Your task to perform on an android device: open app "Google Pay: Save, Pay, Manage" Image 0: 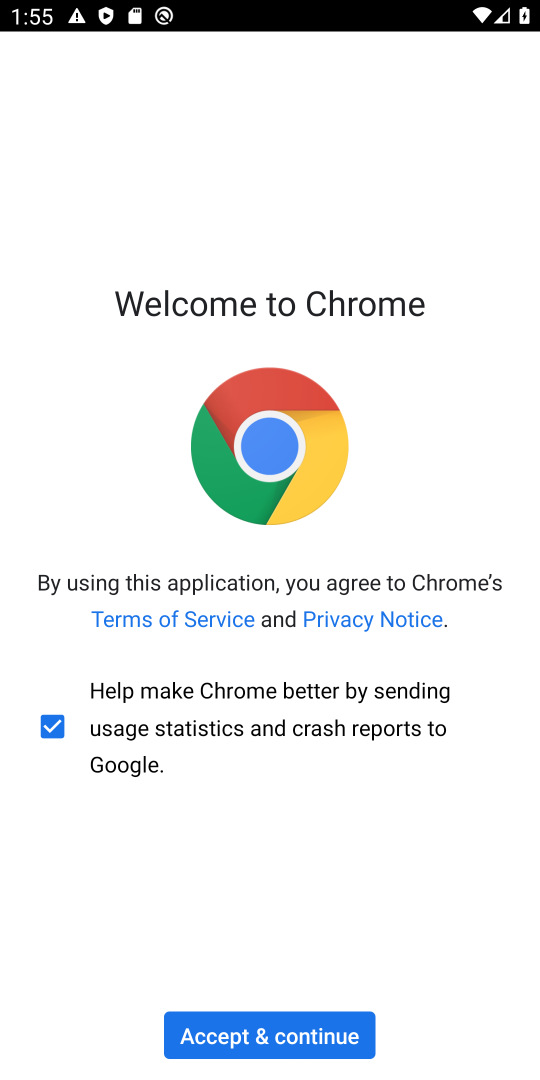
Step 0: press home button
Your task to perform on an android device: open app "Google Pay: Save, Pay, Manage" Image 1: 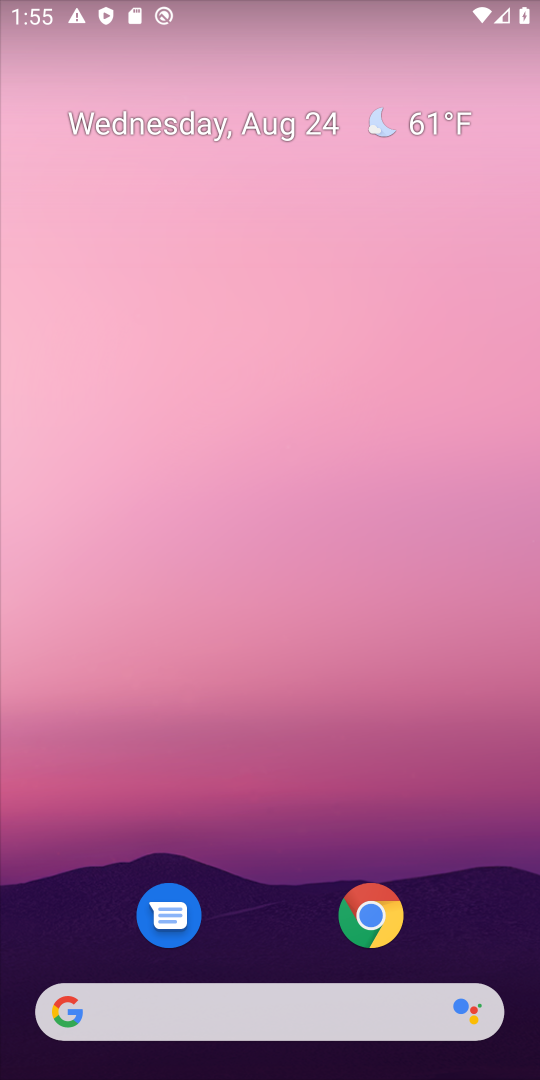
Step 1: drag from (288, 851) to (283, 320)
Your task to perform on an android device: open app "Google Pay: Save, Pay, Manage" Image 2: 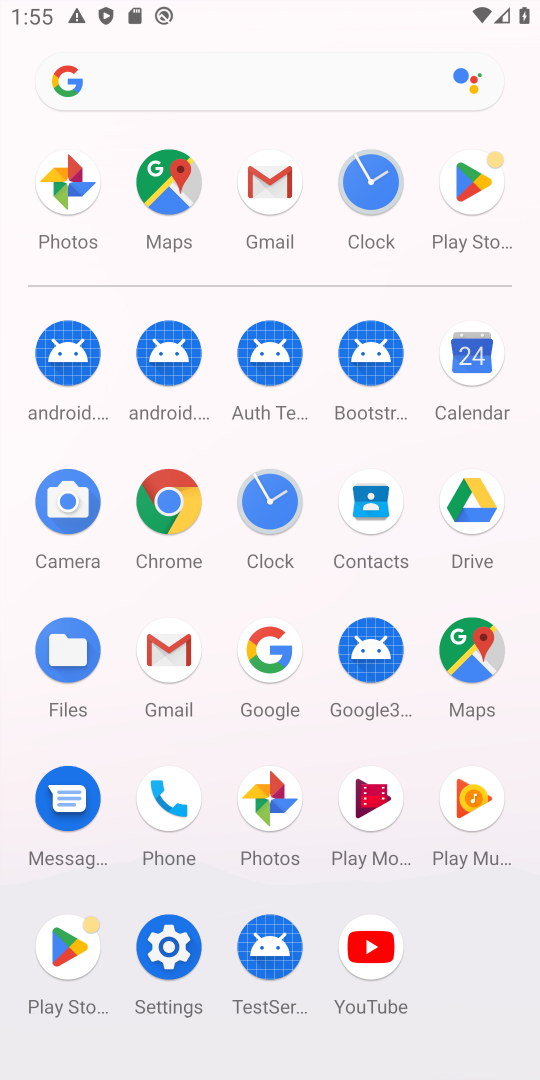
Step 2: click (471, 217)
Your task to perform on an android device: open app "Google Pay: Save, Pay, Manage" Image 3: 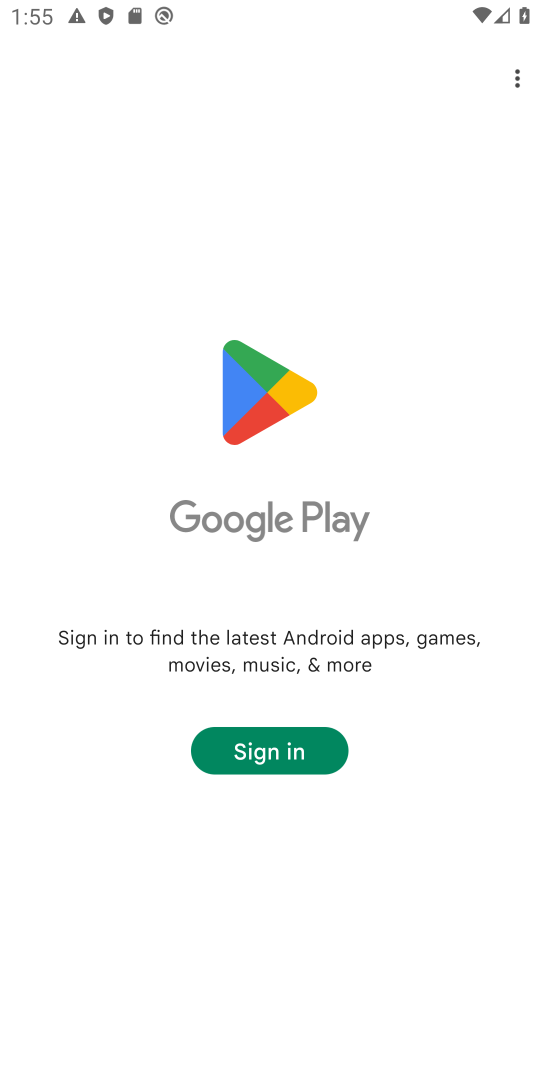
Step 3: task complete